Your task to perform on an android device: What's on my calendar tomorrow? Image 0: 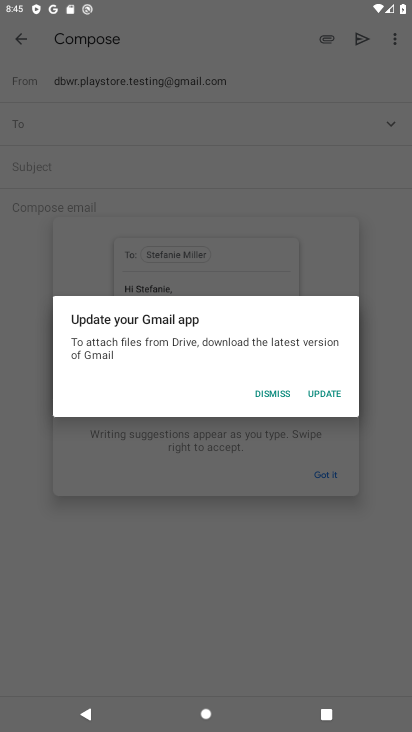
Step 0: press home button
Your task to perform on an android device: What's on my calendar tomorrow? Image 1: 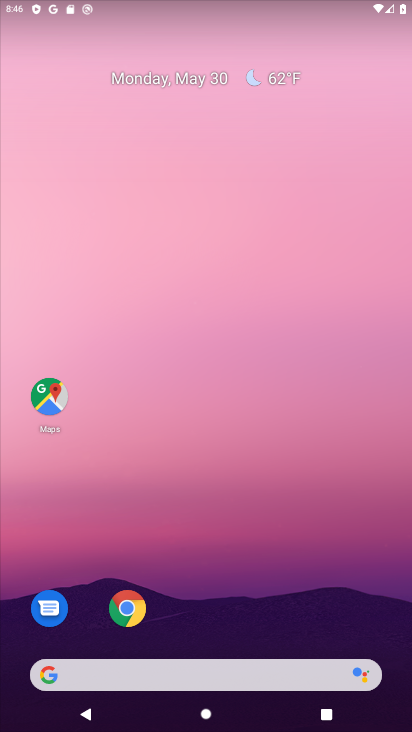
Step 1: drag from (159, 656) to (279, 97)
Your task to perform on an android device: What's on my calendar tomorrow? Image 2: 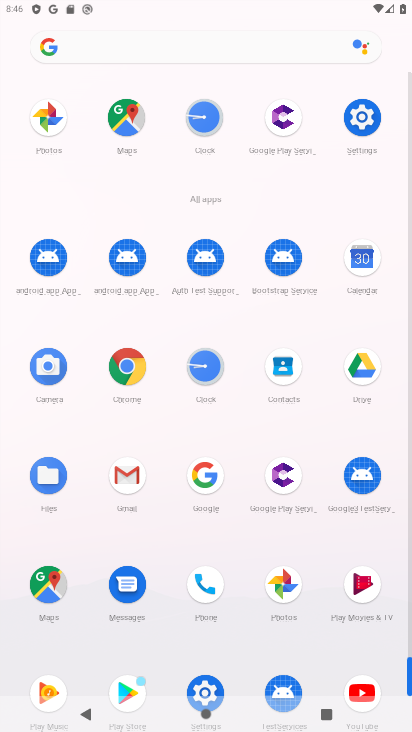
Step 2: click (366, 255)
Your task to perform on an android device: What's on my calendar tomorrow? Image 3: 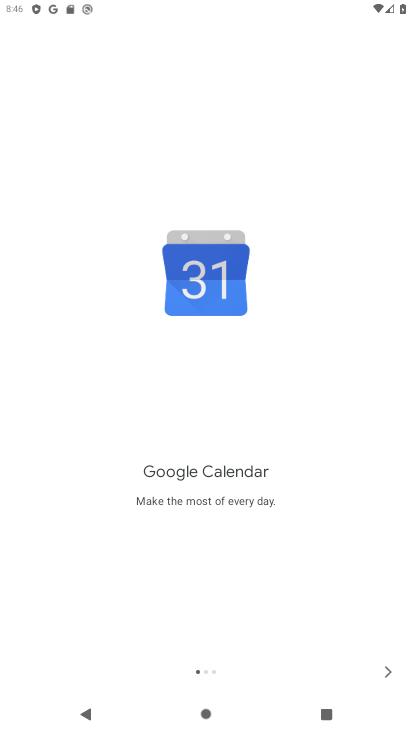
Step 3: click (390, 660)
Your task to perform on an android device: What's on my calendar tomorrow? Image 4: 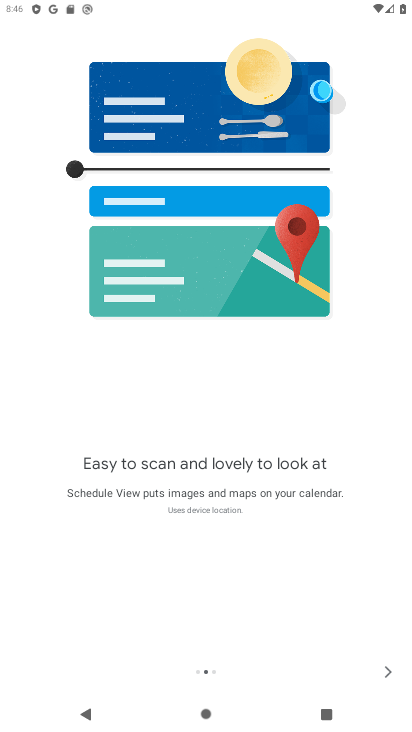
Step 4: click (399, 674)
Your task to perform on an android device: What's on my calendar tomorrow? Image 5: 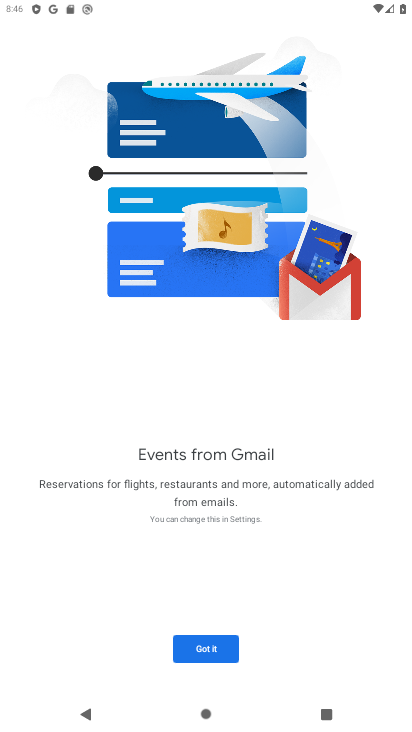
Step 5: click (199, 647)
Your task to perform on an android device: What's on my calendar tomorrow? Image 6: 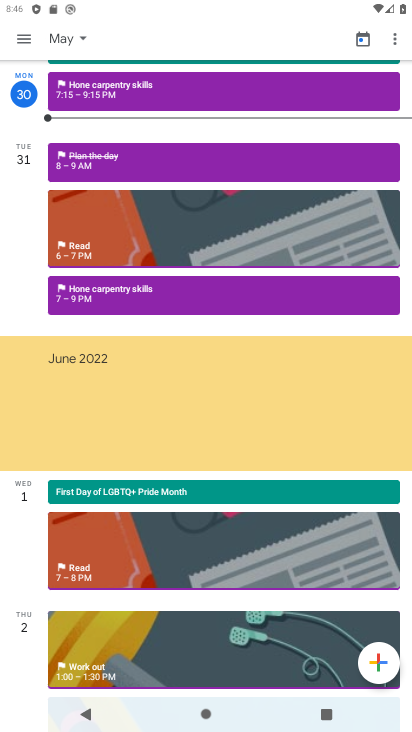
Step 6: click (16, 162)
Your task to perform on an android device: What's on my calendar tomorrow? Image 7: 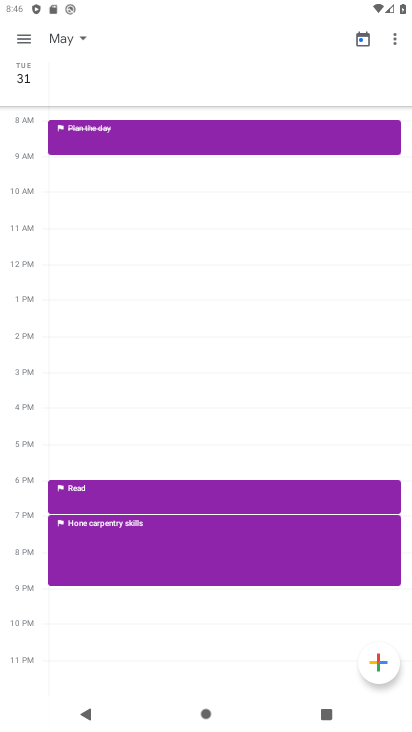
Step 7: task complete